Your task to perform on an android device: Search for the best Nike running shoes on Nike.com Image 0: 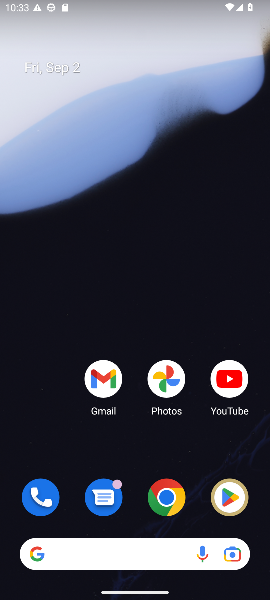
Step 0: click (170, 511)
Your task to perform on an android device: Search for the best Nike running shoes on Nike.com Image 1: 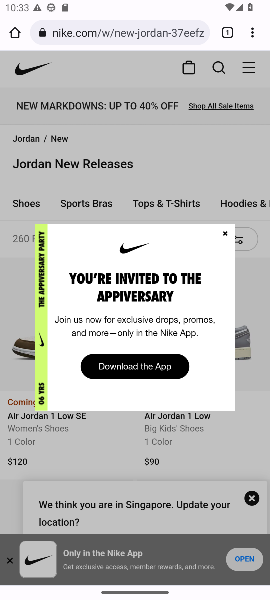
Step 1: click (225, 228)
Your task to perform on an android device: Search for the best Nike running shoes on Nike.com Image 2: 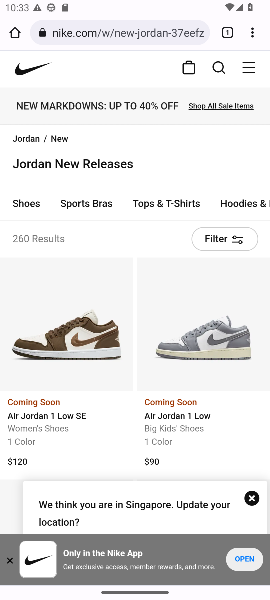
Step 2: click (218, 72)
Your task to perform on an android device: Search for the best Nike running shoes on Nike.com Image 3: 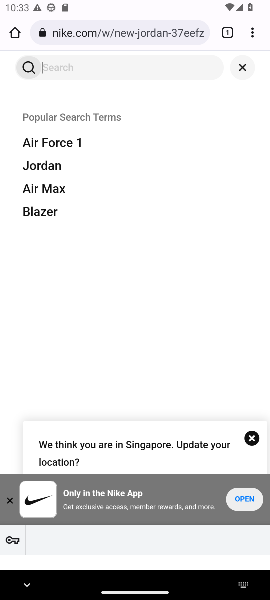
Step 3: type "running shoes"
Your task to perform on an android device: Search for the best Nike running shoes on Nike.com Image 4: 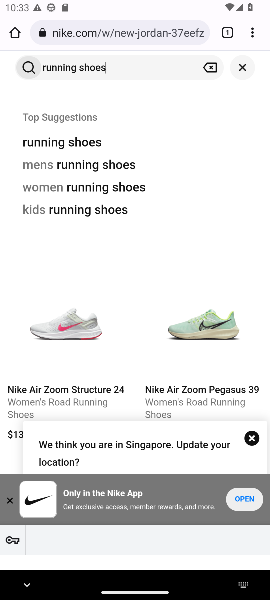
Step 4: press enter
Your task to perform on an android device: Search for the best Nike running shoes on Nike.com Image 5: 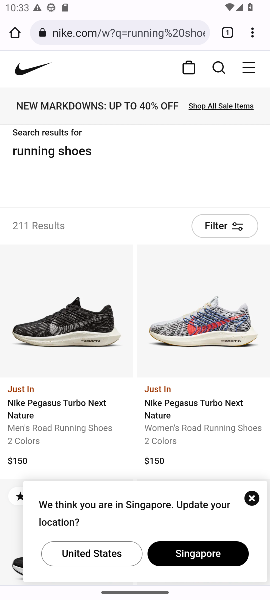
Step 5: task complete